Your task to perform on an android device: search for starred emails in the gmail app Image 0: 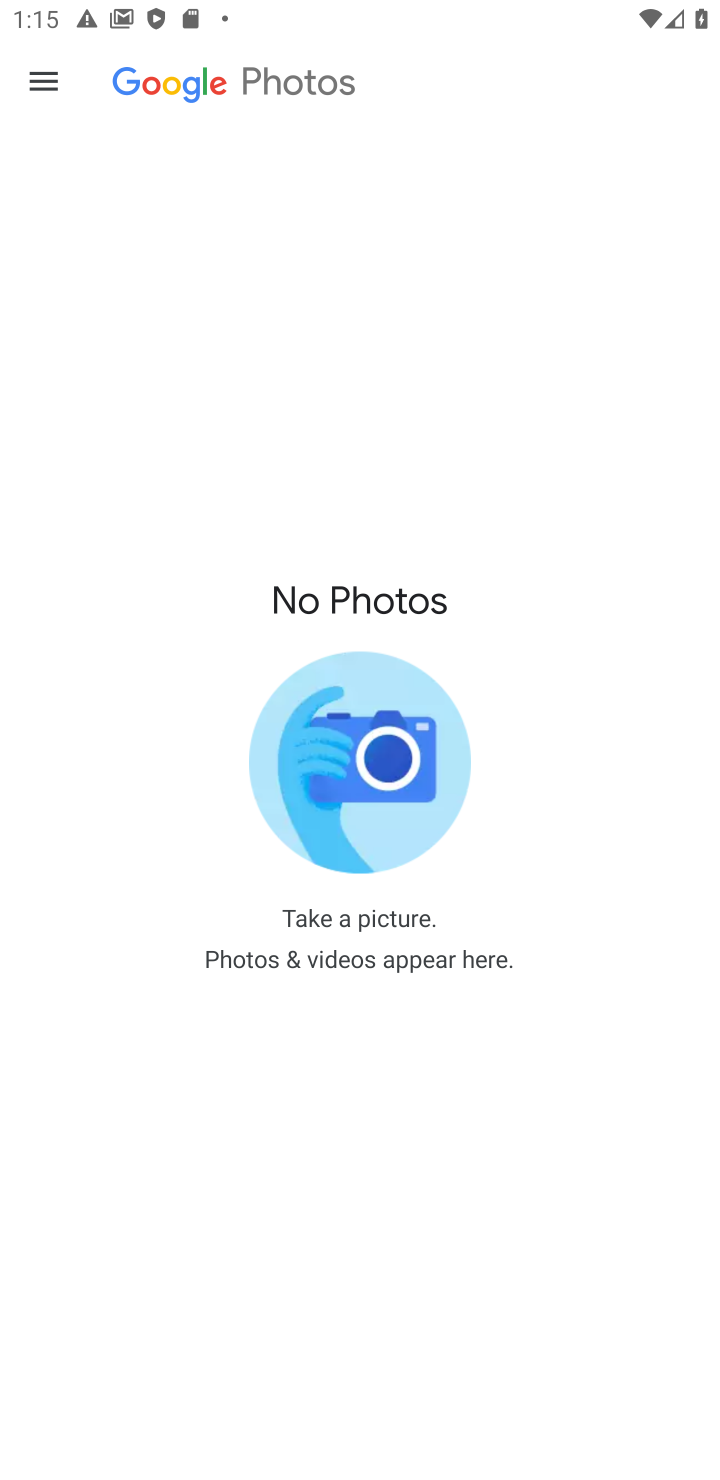
Step 0: press home button
Your task to perform on an android device: search for starred emails in the gmail app Image 1: 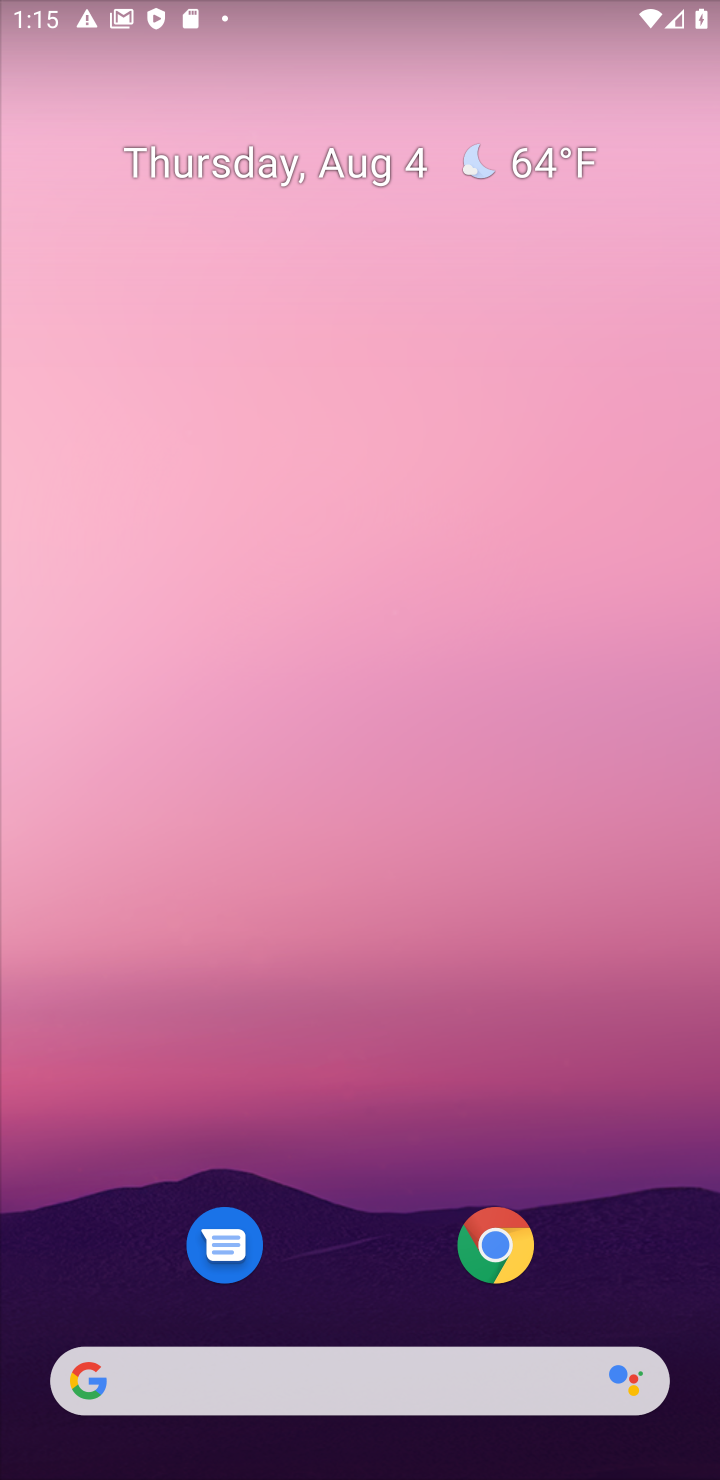
Step 1: drag from (426, 1092) to (401, 183)
Your task to perform on an android device: search for starred emails in the gmail app Image 2: 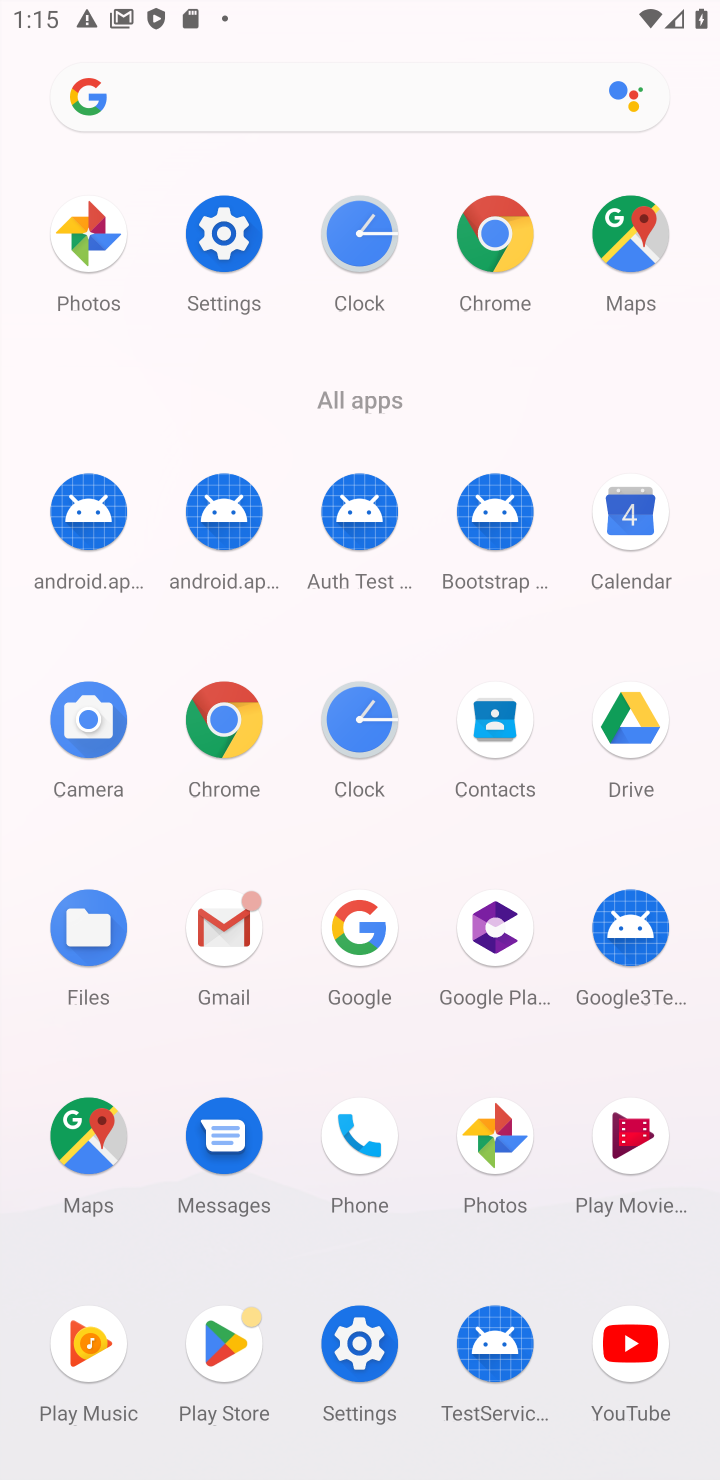
Step 2: click (220, 920)
Your task to perform on an android device: search for starred emails in the gmail app Image 3: 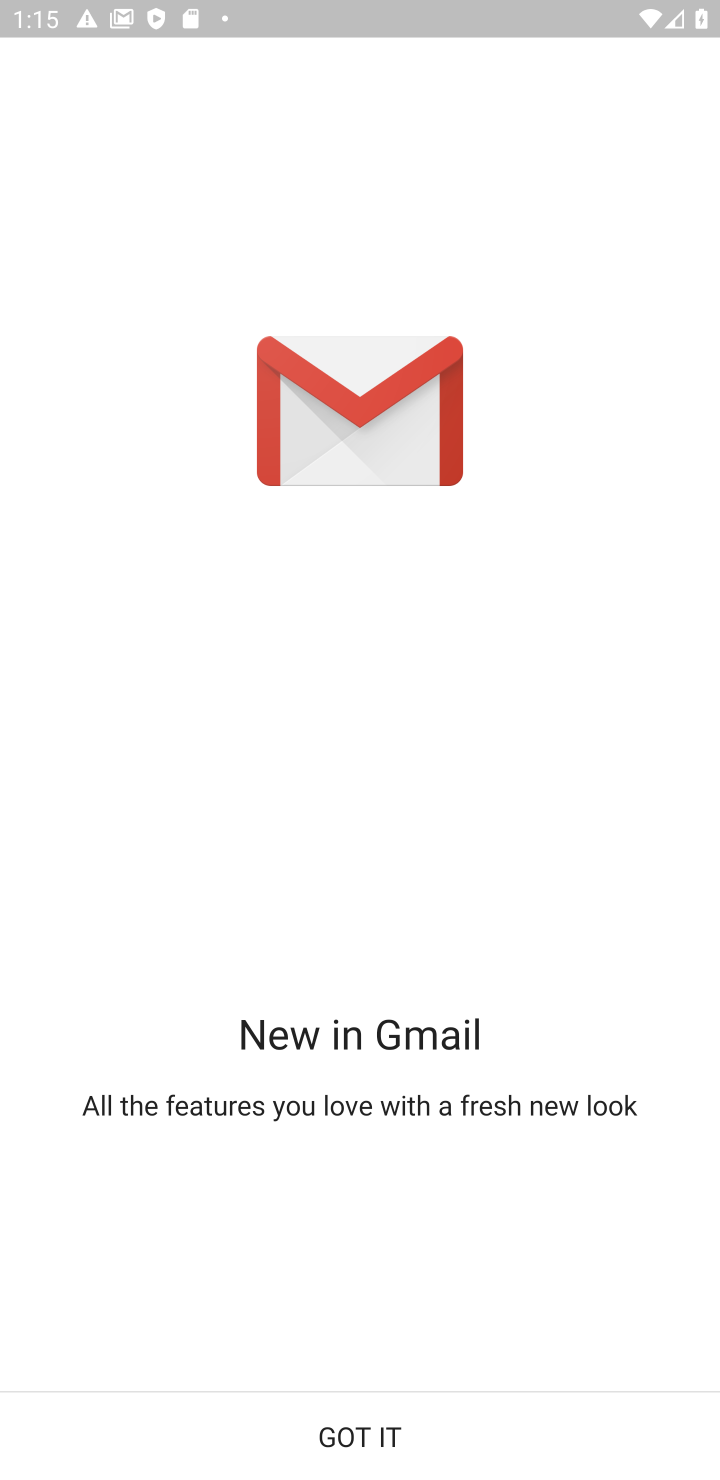
Step 3: click (352, 1426)
Your task to perform on an android device: search for starred emails in the gmail app Image 4: 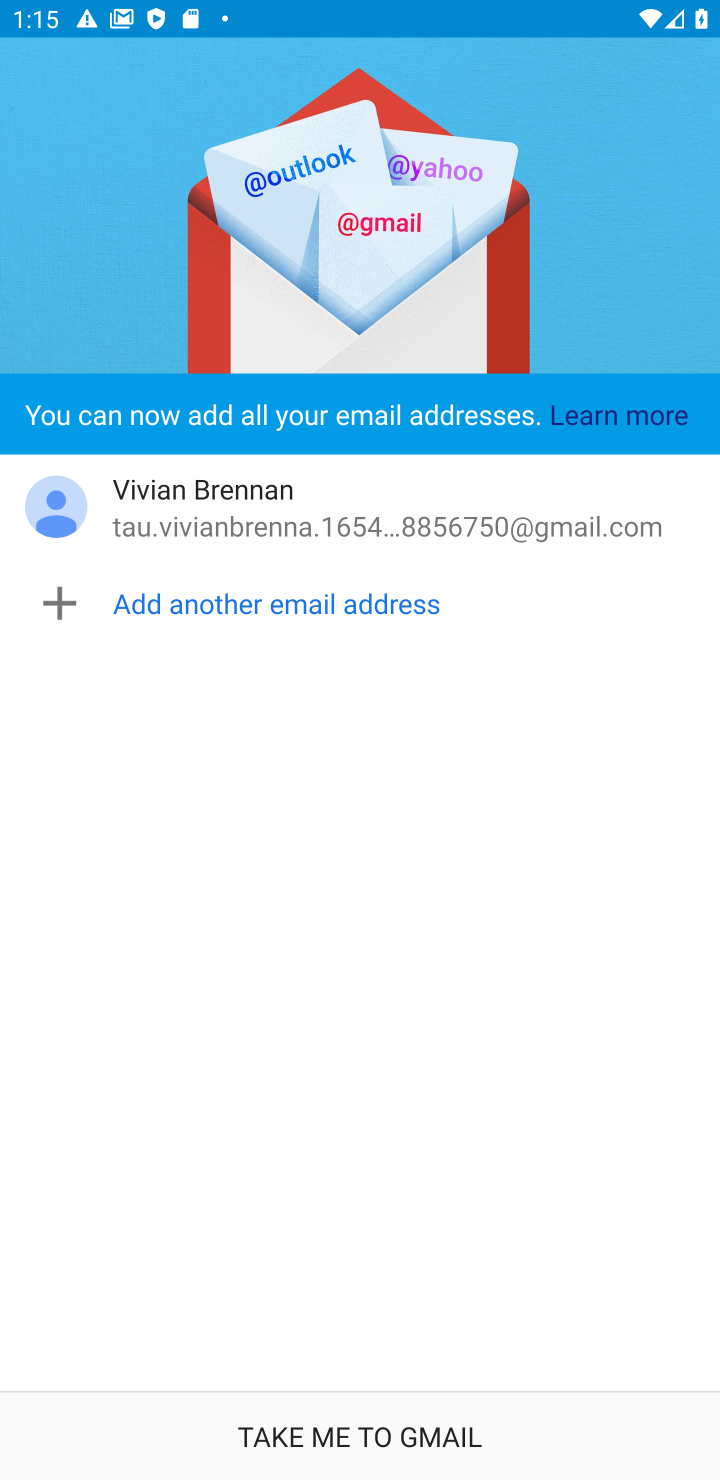
Step 4: click (338, 1451)
Your task to perform on an android device: search for starred emails in the gmail app Image 5: 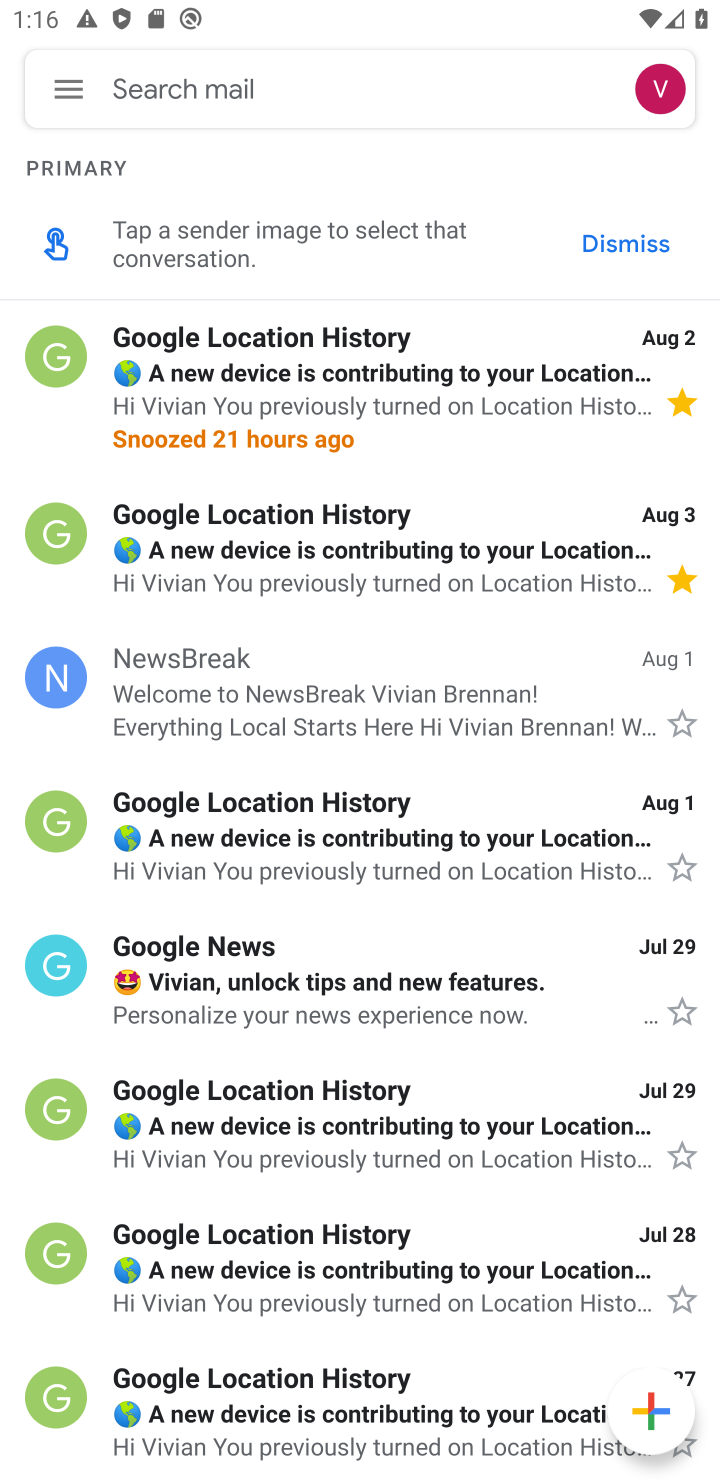
Step 5: click (79, 85)
Your task to perform on an android device: search for starred emails in the gmail app Image 6: 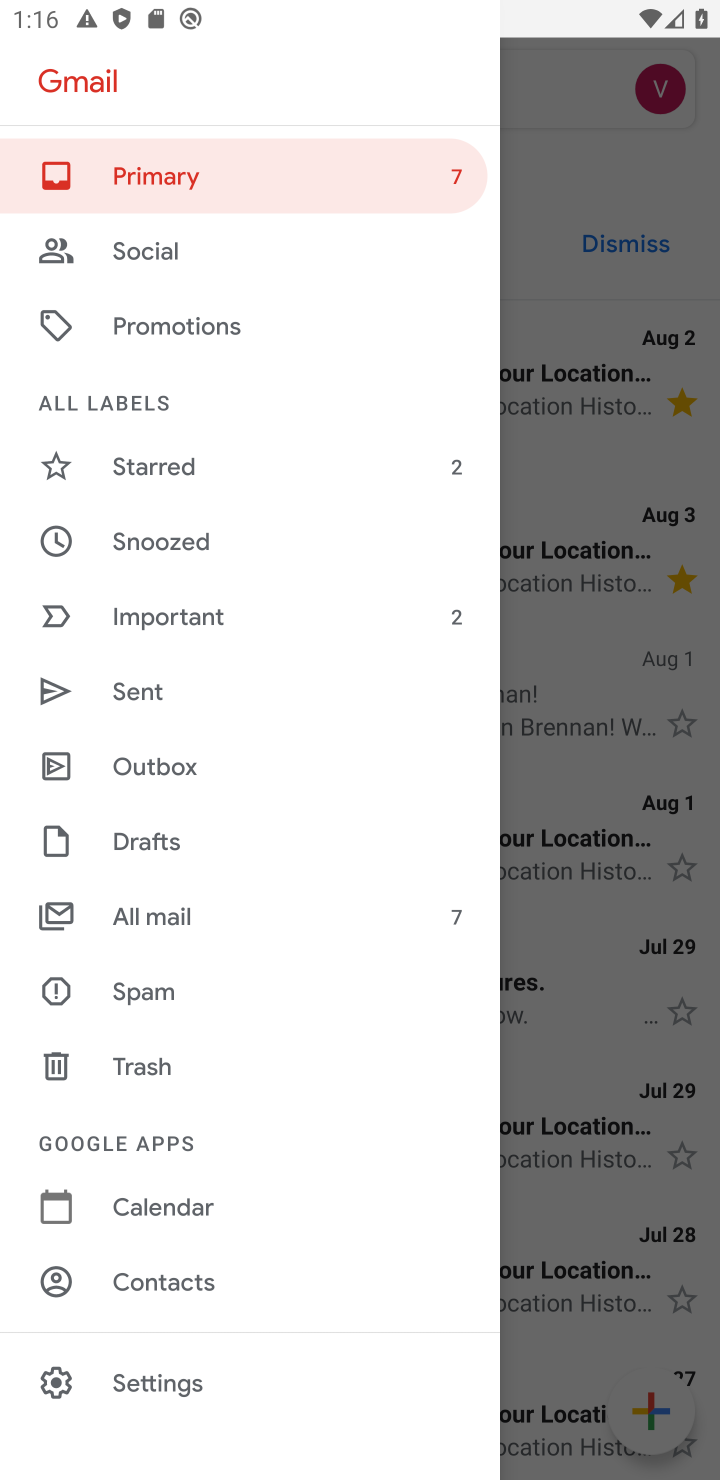
Step 6: click (184, 482)
Your task to perform on an android device: search for starred emails in the gmail app Image 7: 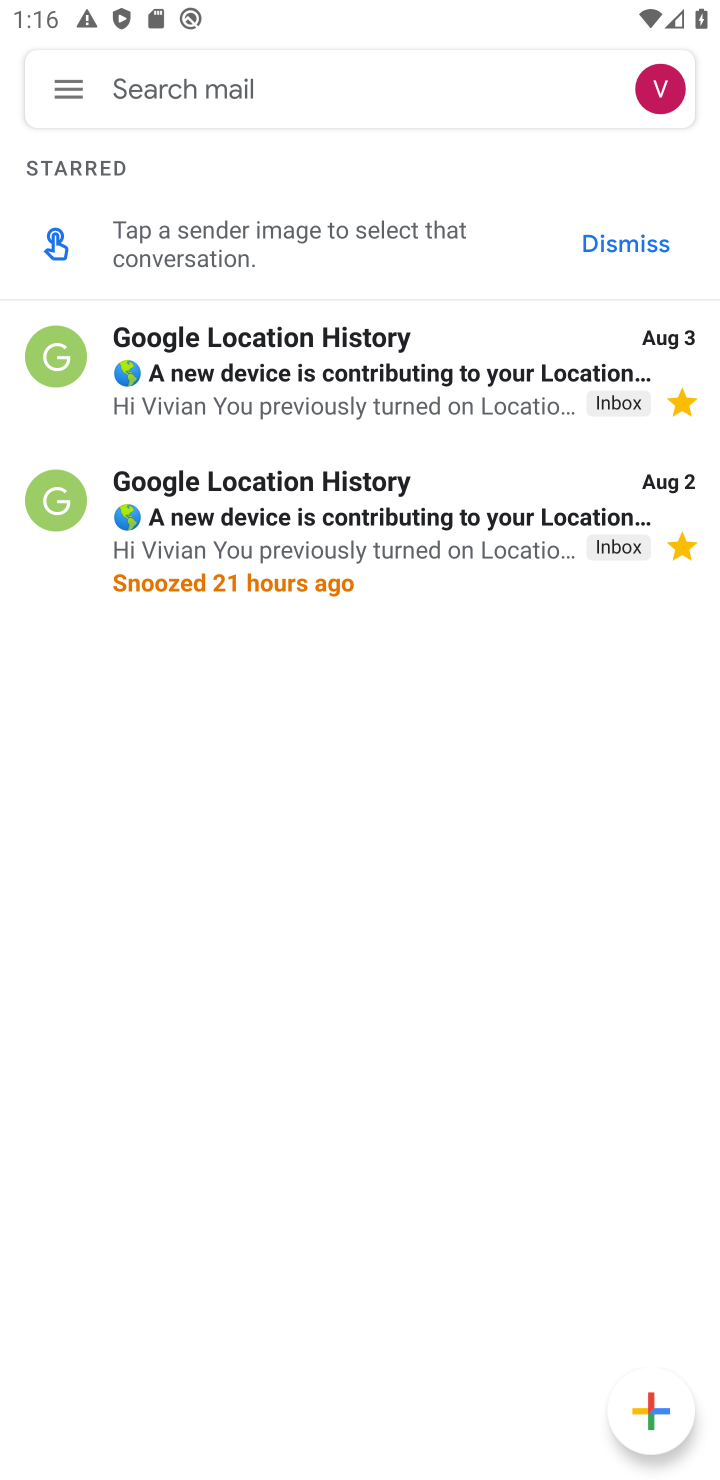
Step 7: task complete